Your task to perform on an android device: change the clock display to show seconds Image 0: 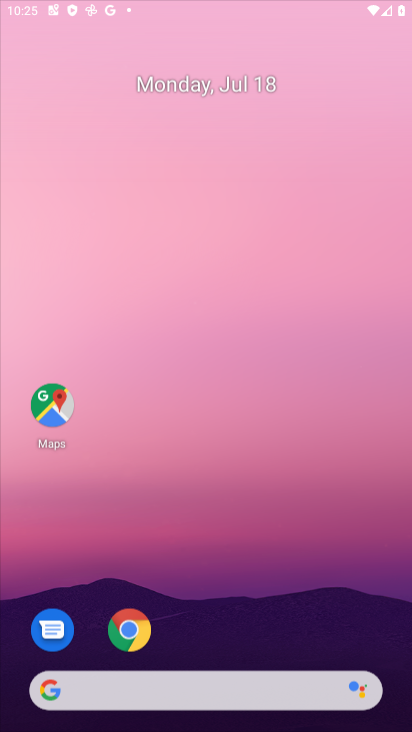
Step 0: drag from (361, 634) to (230, 53)
Your task to perform on an android device: change the clock display to show seconds Image 1: 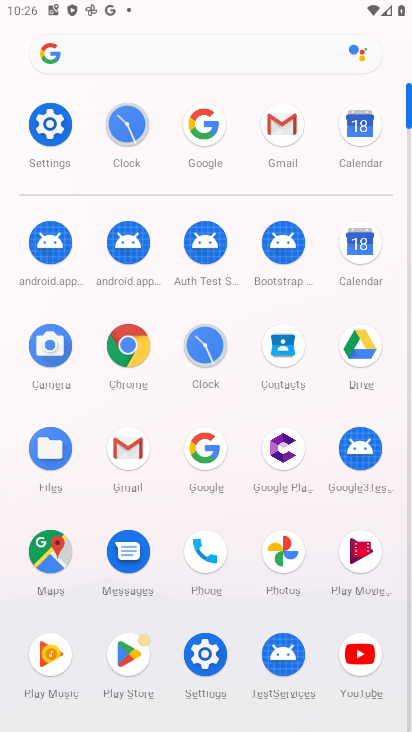
Step 1: click (199, 353)
Your task to perform on an android device: change the clock display to show seconds Image 2: 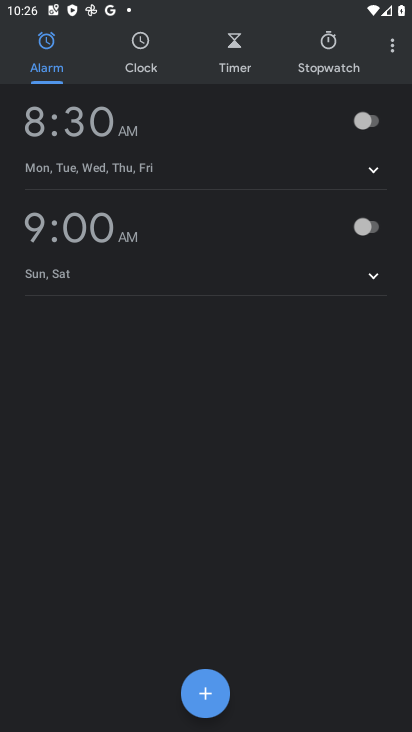
Step 2: click (387, 49)
Your task to perform on an android device: change the clock display to show seconds Image 3: 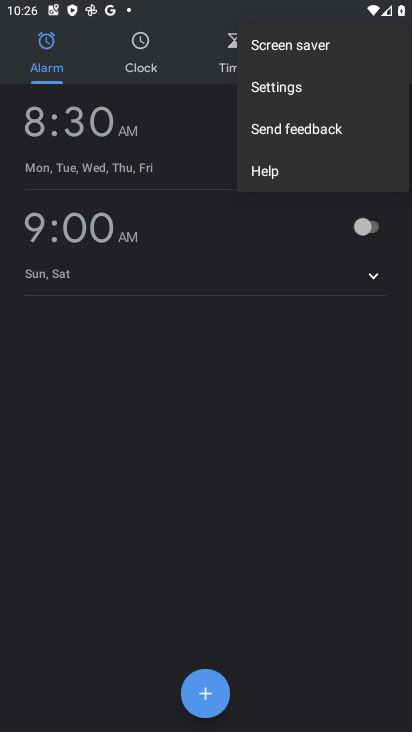
Step 3: click (330, 89)
Your task to perform on an android device: change the clock display to show seconds Image 4: 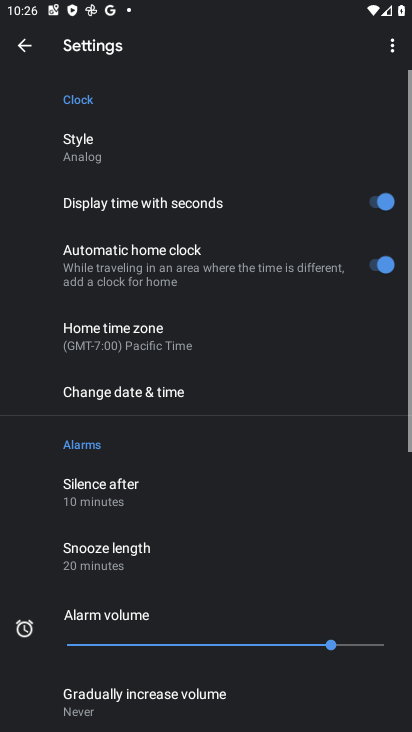
Step 4: click (356, 190)
Your task to perform on an android device: change the clock display to show seconds Image 5: 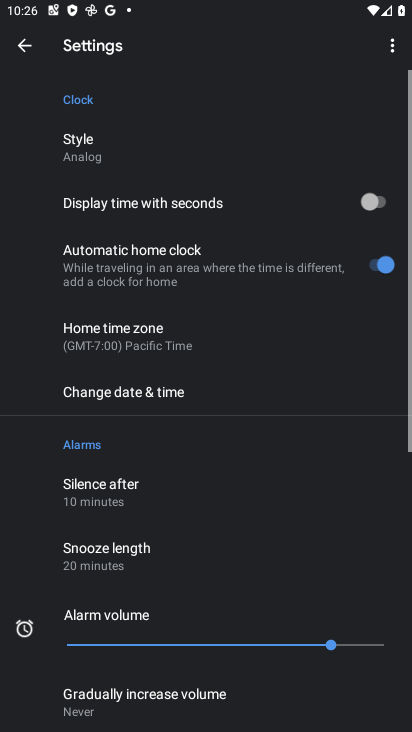
Step 5: task complete